Your task to perform on an android device: Open Yahoo.com Image 0: 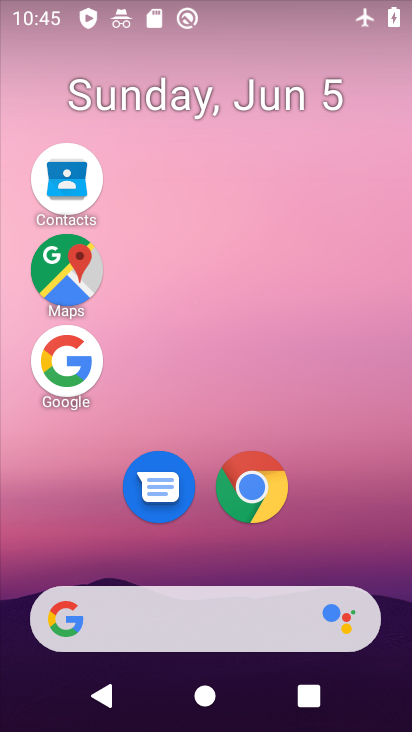
Step 0: drag from (212, 612) to (229, 91)
Your task to perform on an android device: Open Yahoo.com Image 1: 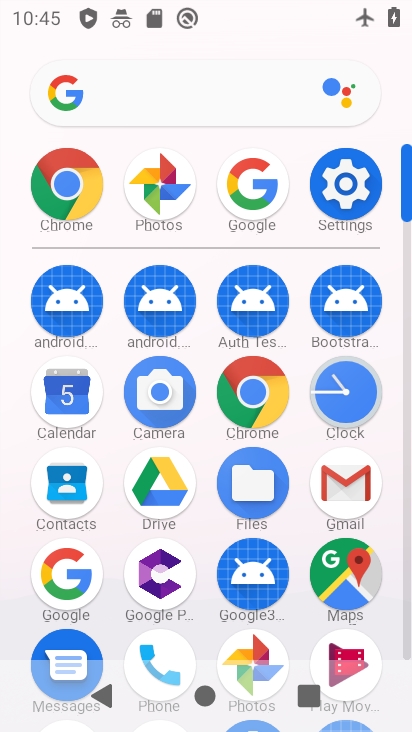
Step 1: click (77, 211)
Your task to perform on an android device: Open Yahoo.com Image 2: 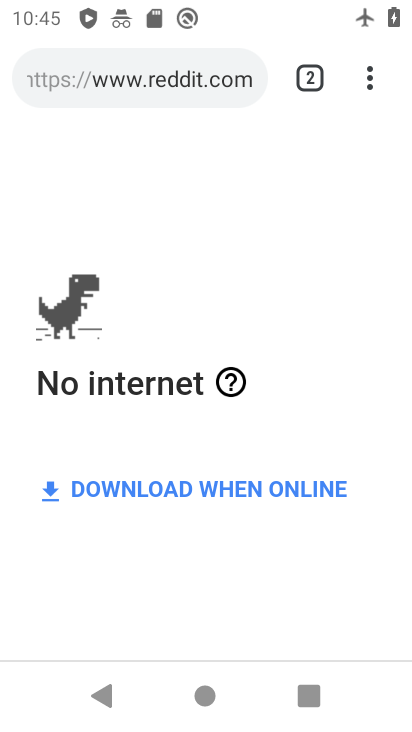
Step 2: click (176, 98)
Your task to perform on an android device: Open Yahoo.com Image 3: 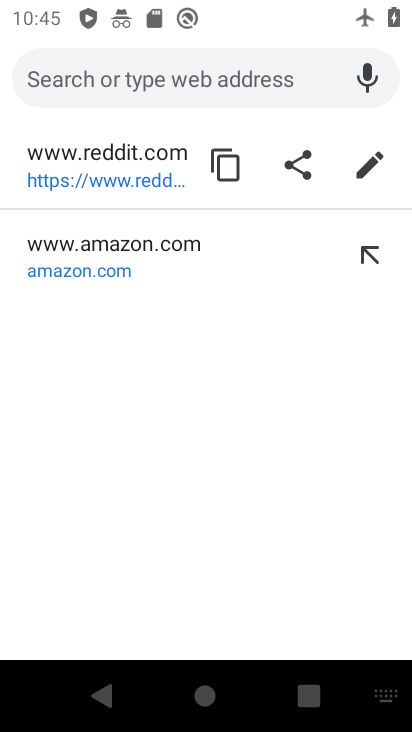
Step 3: type "yahoo"
Your task to perform on an android device: Open Yahoo.com Image 4: 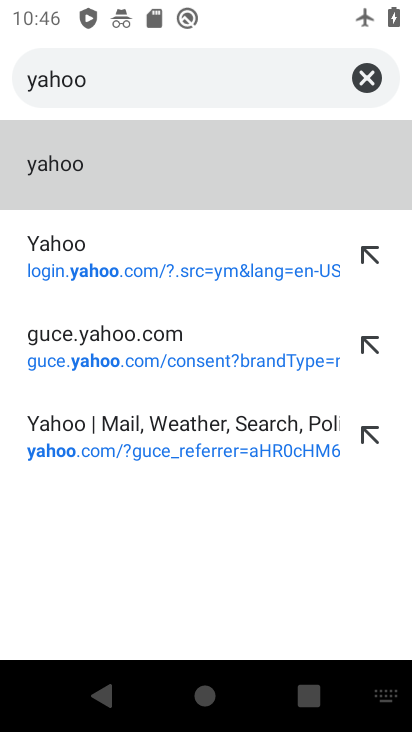
Step 4: click (220, 263)
Your task to perform on an android device: Open Yahoo.com Image 5: 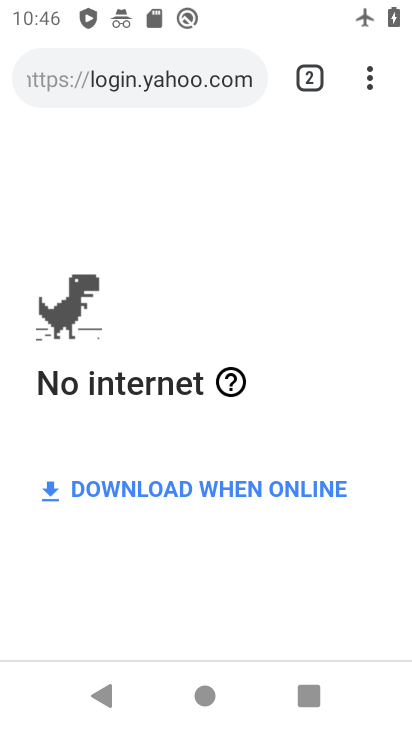
Step 5: task complete